Your task to perform on an android device: set default search engine in the chrome app Image 0: 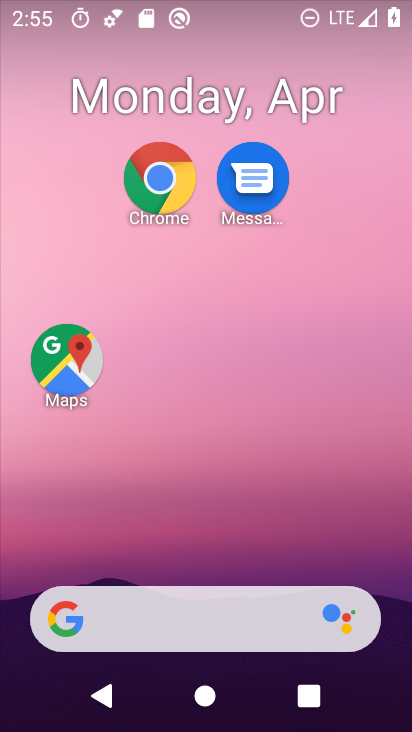
Step 0: drag from (253, 658) to (196, 104)
Your task to perform on an android device: set default search engine in the chrome app Image 1: 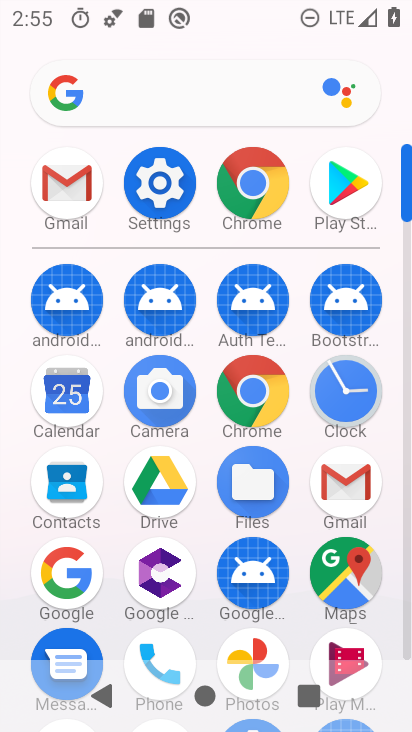
Step 1: click (253, 387)
Your task to perform on an android device: set default search engine in the chrome app Image 2: 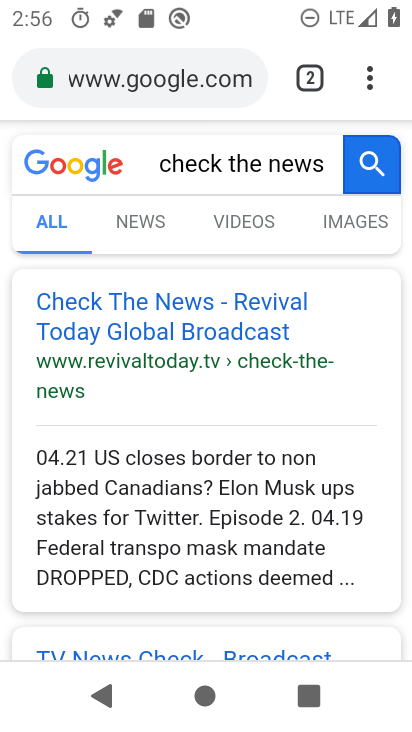
Step 2: drag from (372, 85) to (120, 542)
Your task to perform on an android device: set default search engine in the chrome app Image 3: 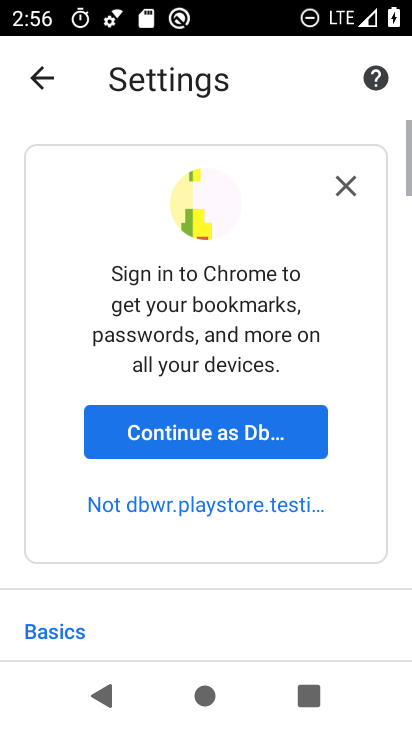
Step 3: drag from (220, 639) to (193, 113)
Your task to perform on an android device: set default search engine in the chrome app Image 4: 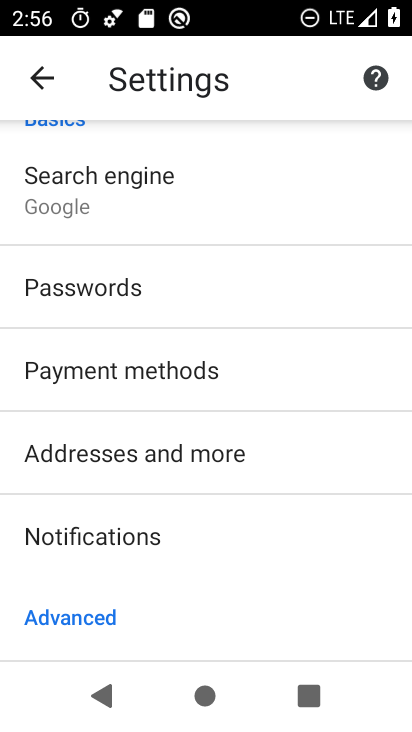
Step 4: drag from (261, 613) to (253, 226)
Your task to perform on an android device: set default search engine in the chrome app Image 5: 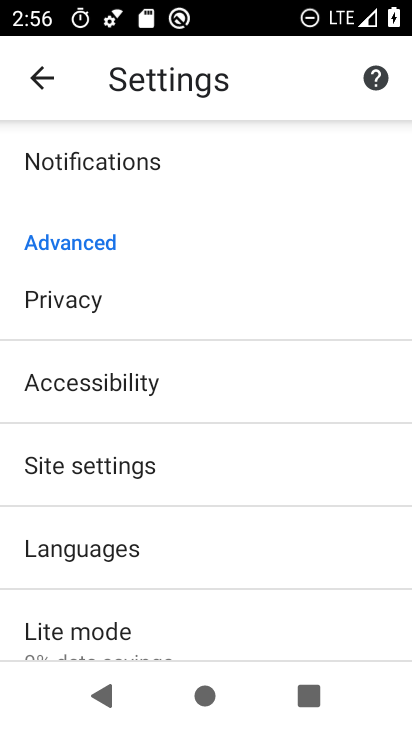
Step 5: drag from (166, 247) to (290, 731)
Your task to perform on an android device: set default search engine in the chrome app Image 6: 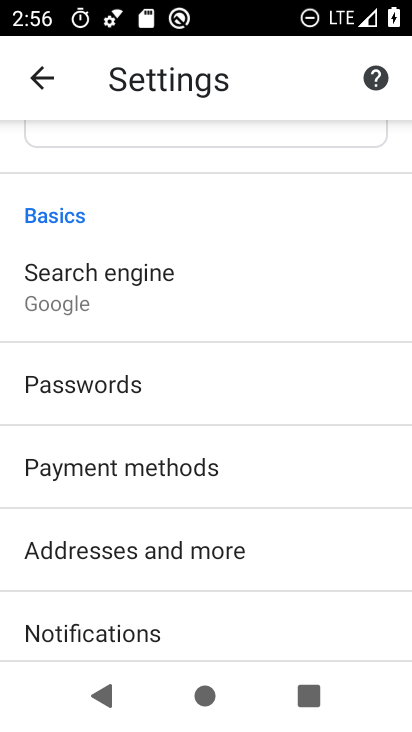
Step 6: click (168, 283)
Your task to perform on an android device: set default search engine in the chrome app Image 7: 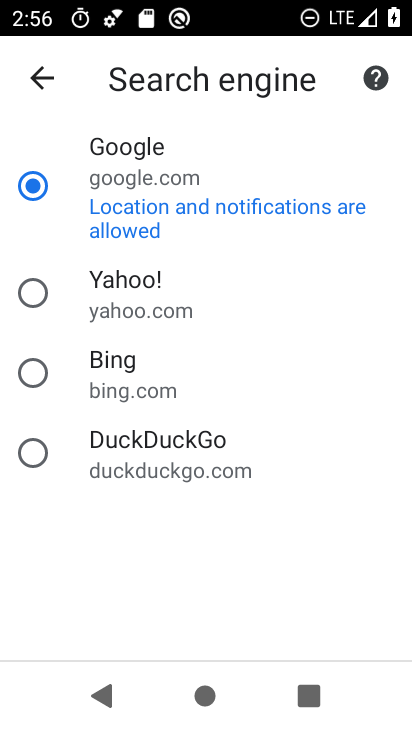
Step 7: task complete